Your task to perform on an android device: allow cookies in the chrome app Image 0: 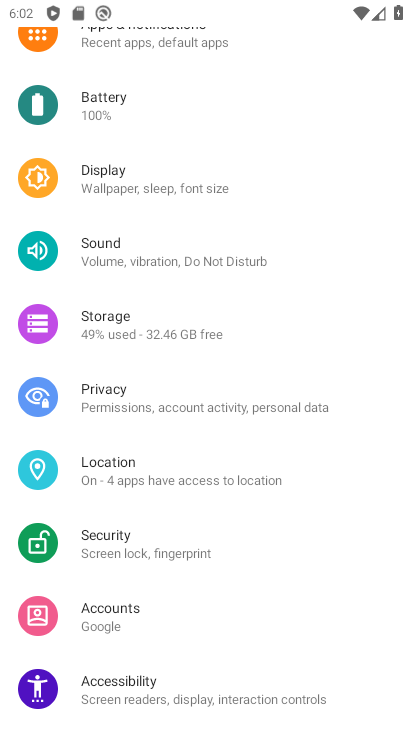
Step 0: click (105, 698)
Your task to perform on an android device: allow cookies in the chrome app Image 1: 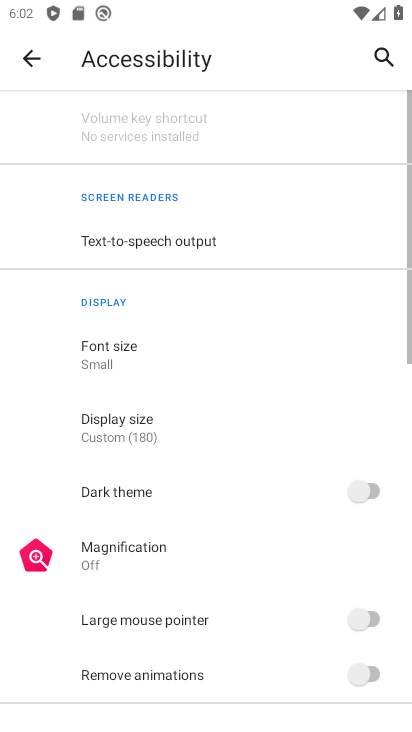
Step 1: press home button
Your task to perform on an android device: allow cookies in the chrome app Image 2: 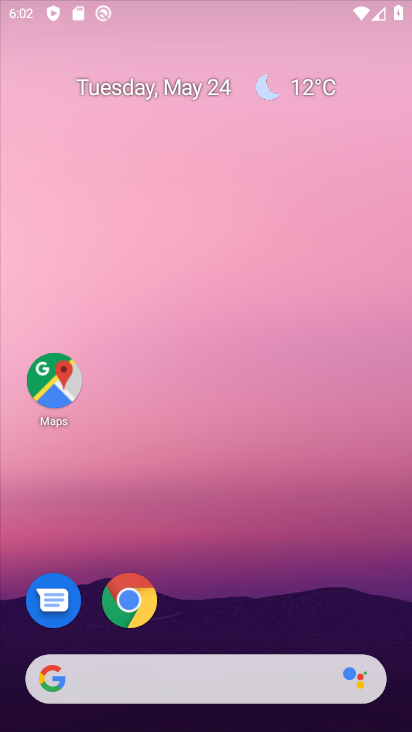
Step 2: drag from (250, 657) to (308, 92)
Your task to perform on an android device: allow cookies in the chrome app Image 3: 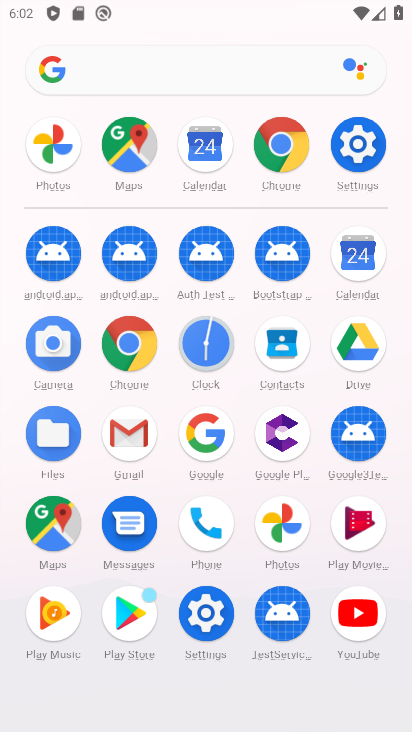
Step 3: click (119, 348)
Your task to perform on an android device: allow cookies in the chrome app Image 4: 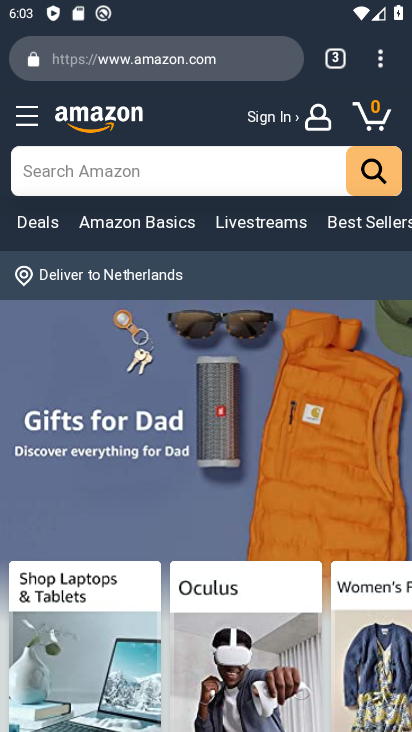
Step 4: drag from (375, 68) to (193, 631)
Your task to perform on an android device: allow cookies in the chrome app Image 5: 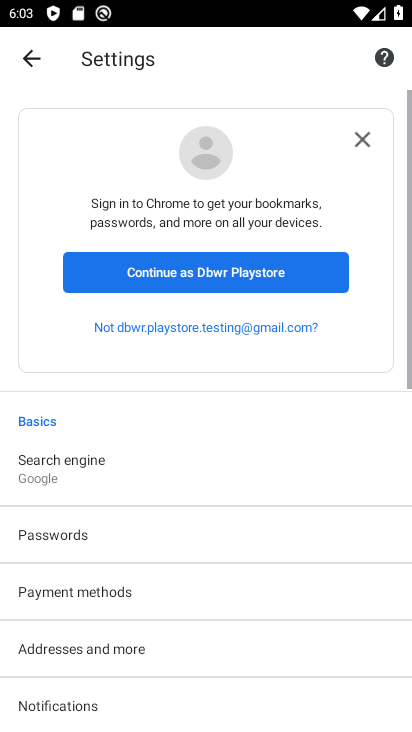
Step 5: drag from (223, 713) to (268, 34)
Your task to perform on an android device: allow cookies in the chrome app Image 6: 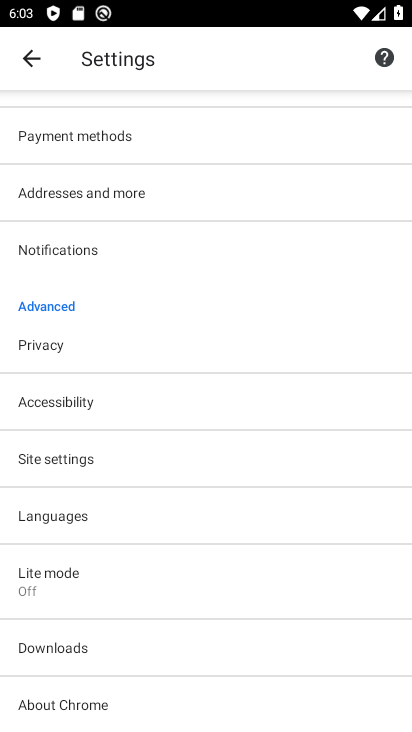
Step 6: click (94, 467)
Your task to perform on an android device: allow cookies in the chrome app Image 7: 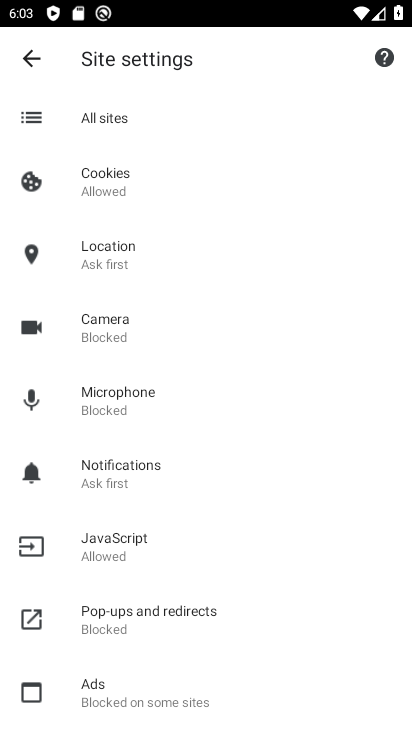
Step 7: click (103, 162)
Your task to perform on an android device: allow cookies in the chrome app Image 8: 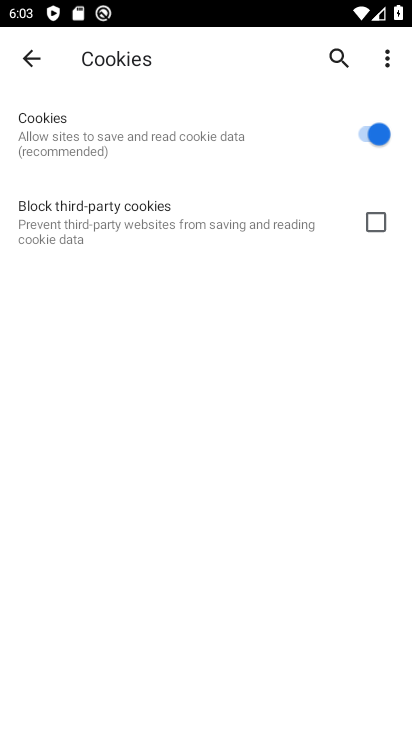
Step 8: task complete